Your task to perform on an android device: allow cookies in the chrome app Image 0: 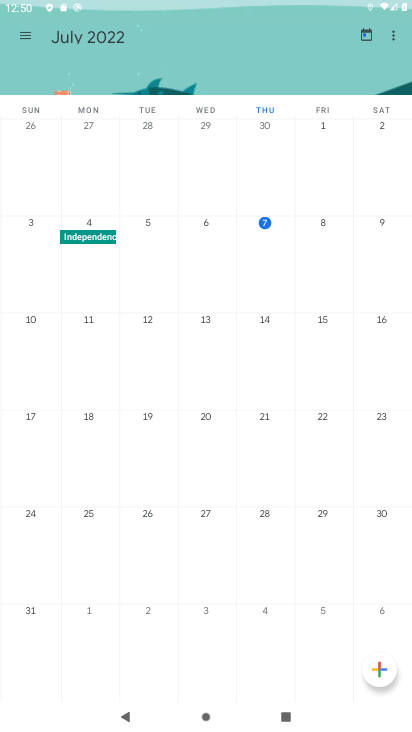
Step 0: press home button
Your task to perform on an android device: allow cookies in the chrome app Image 1: 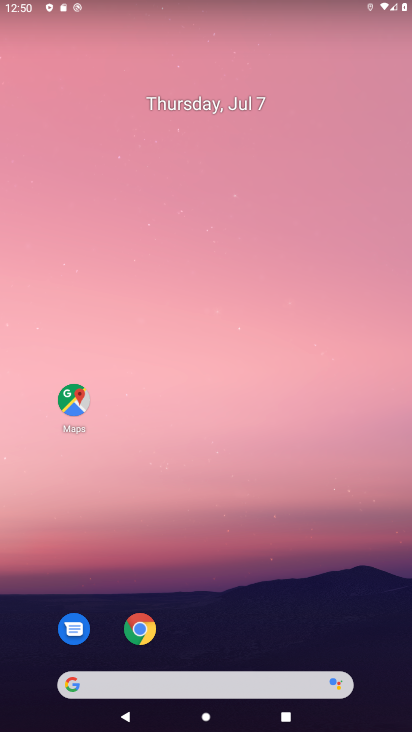
Step 1: click (140, 630)
Your task to perform on an android device: allow cookies in the chrome app Image 2: 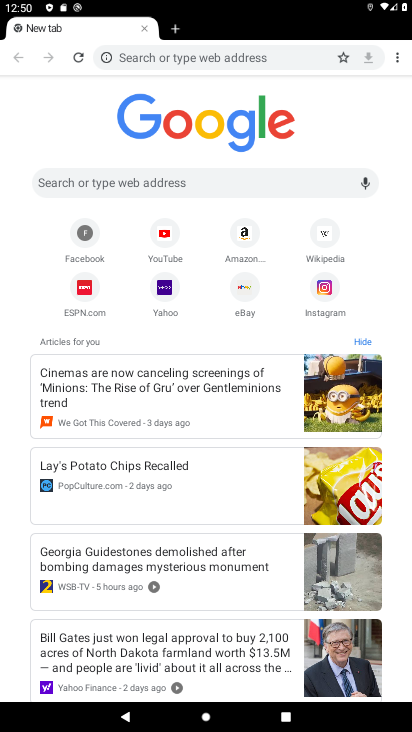
Step 2: click (393, 58)
Your task to perform on an android device: allow cookies in the chrome app Image 3: 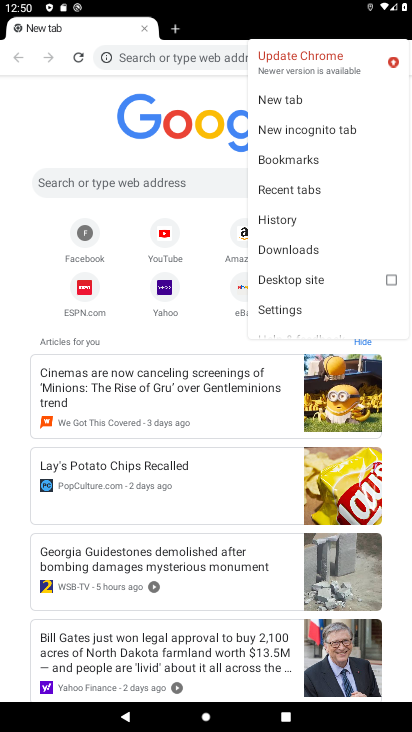
Step 3: click (279, 310)
Your task to perform on an android device: allow cookies in the chrome app Image 4: 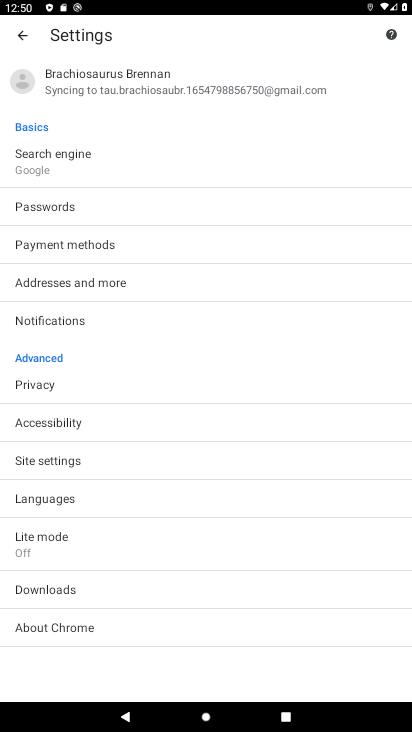
Step 4: click (46, 458)
Your task to perform on an android device: allow cookies in the chrome app Image 5: 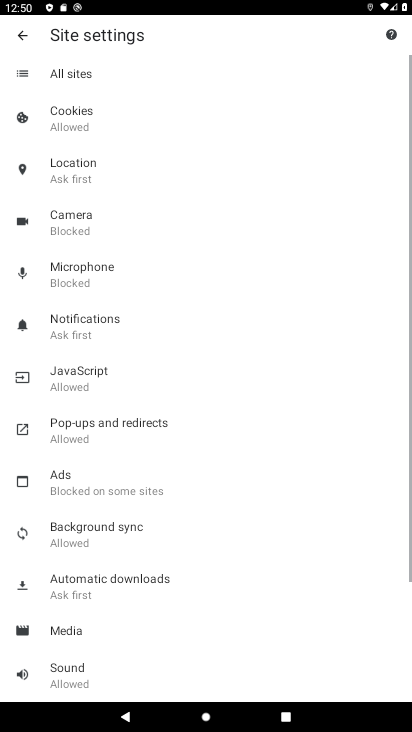
Step 5: click (104, 113)
Your task to perform on an android device: allow cookies in the chrome app Image 6: 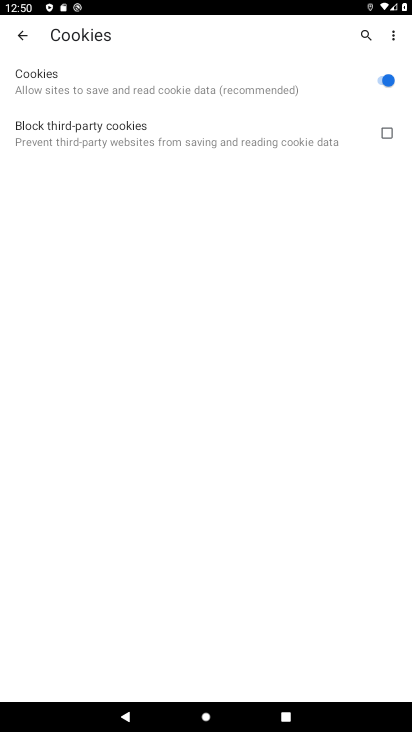
Step 6: task complete